Your task to perform on an android device: Go to display settings Image 0: 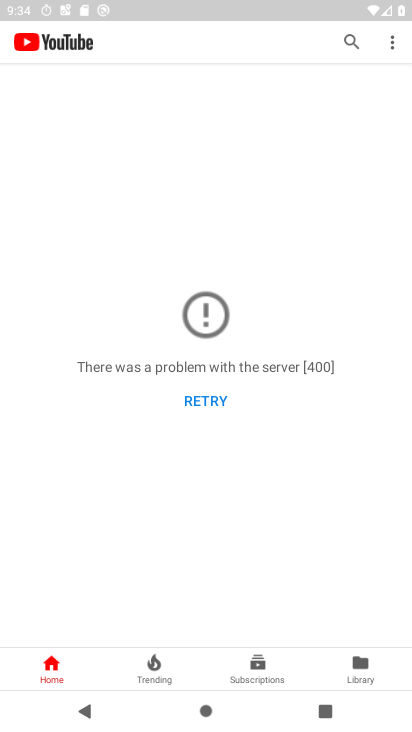
Step 0: press home button
Your task to perform on an android device: Go to display settings Image 1: 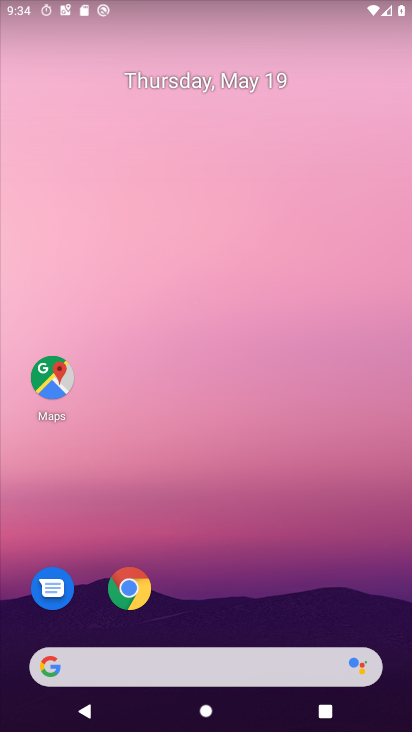
Step 1: drag from (152, 658) to (283, 186)
Your task to perform on an android device: Go to display settings Image 2: 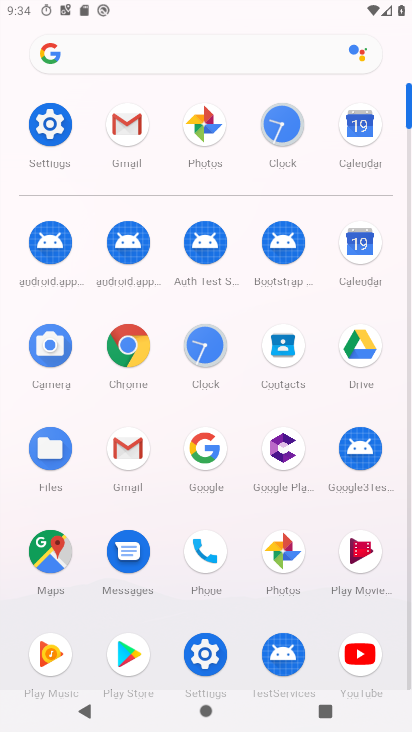
Step 2: click (61, 124)
Your task to perform on an android device: Go to display settings Image 3: 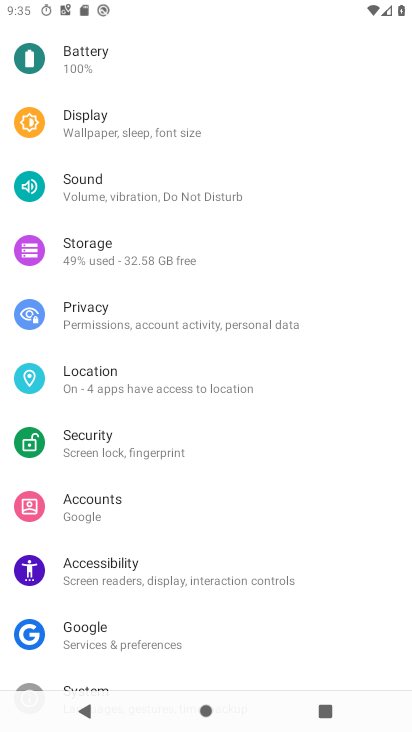
Step 3: click (114, 118)
Your task to perform on an android device: Go to display settings Image 4: 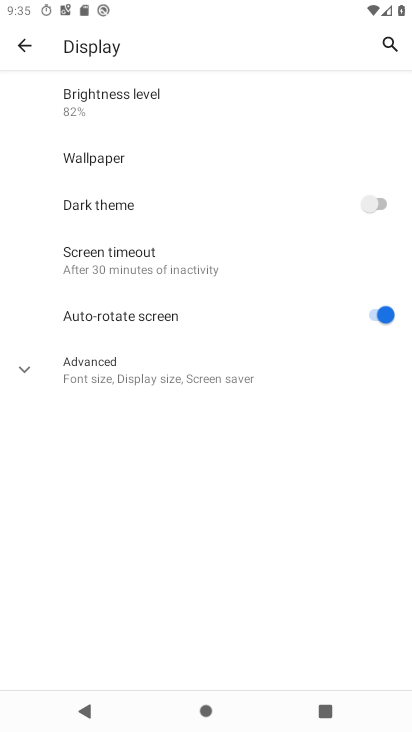
Step 4: task complete